Your task to perform on an android device: choose inbox layout in the gmail app Image 0: 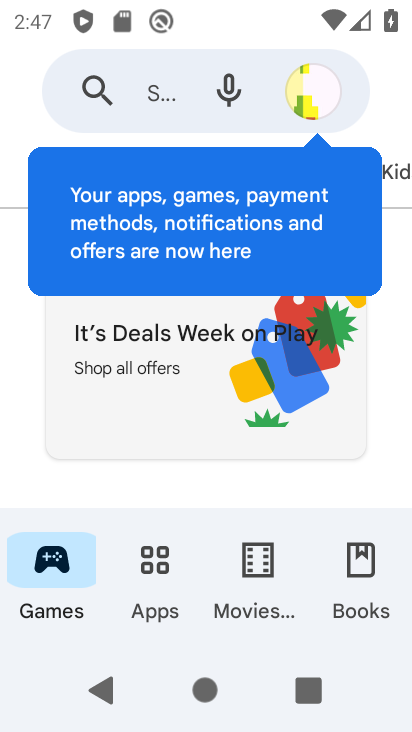
Step 0: press home button
Your task to perform on an android device: choose inbox layout in the gmail app Image 1: 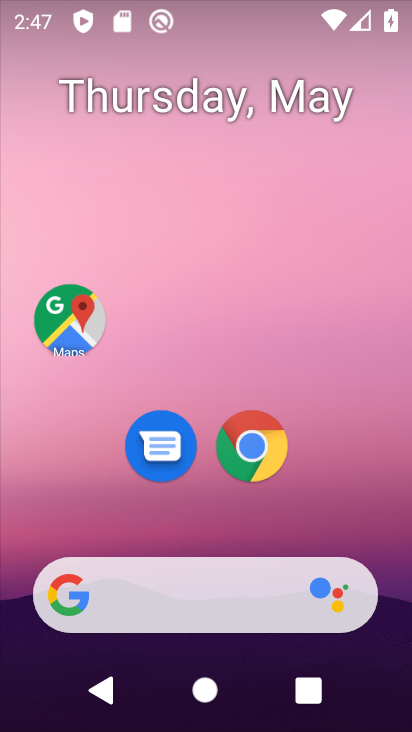
Step 1: drag from (369, 548) to (311, 28)
Your task to perform on an android device: choose inbox layout in the gmail app Image 2: 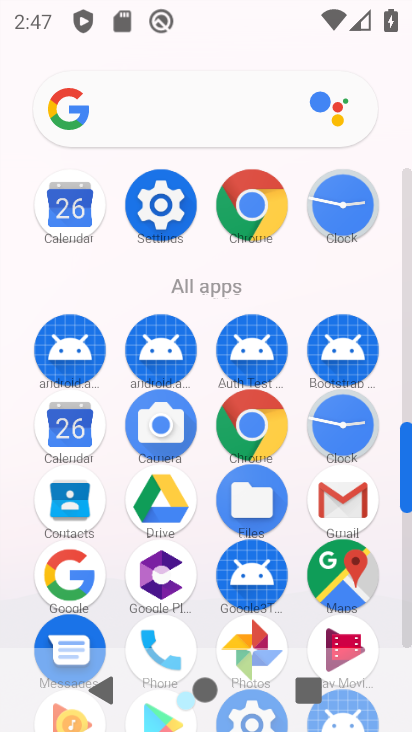
Step 2: click (340, 501)
Your task to perform on an android device: choose inbox layout in the gmail app Image 3: 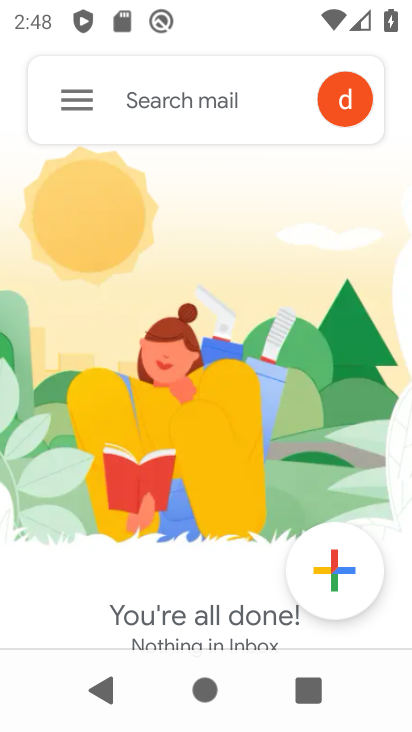
Step 3: click (64, 104)
Your task to perform on an android device: choose inbox layout in the gmail app Image 4: 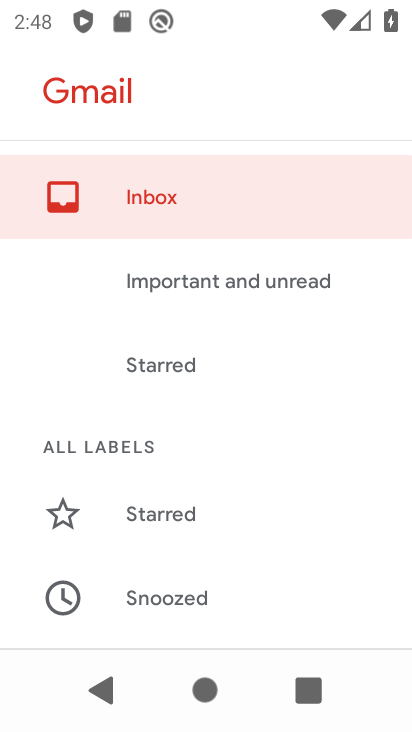
Step 4: drag from (238, 520) to (228, 204)
Your task to perform on an android device: choose inbox layout in the gmail app Image 5: 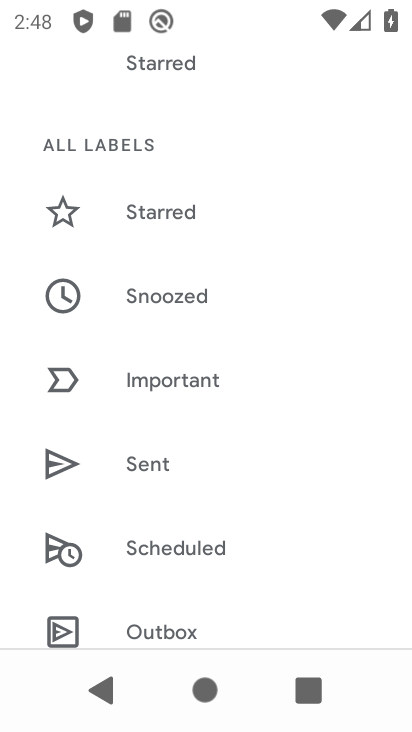
Step 5: drag from (237, 432) to (210, 115)
Your task to perform on an android device: choose inbox layout in the gmail app Image 6: 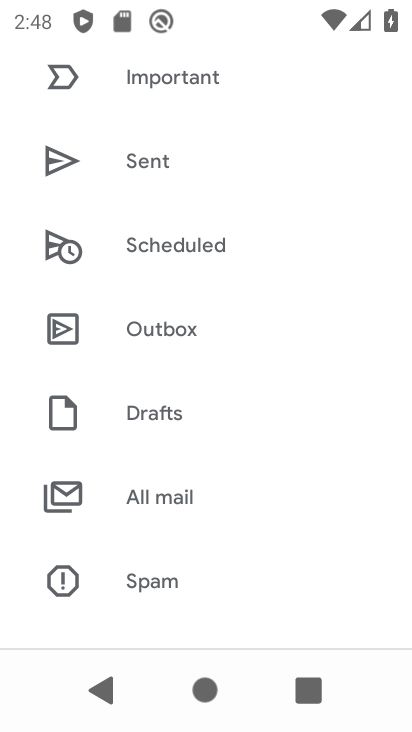
Step 6: drag from (202, 482) to (220, 132)
Your task to perform on an android device: choose inbox layout in the gmail app Image 7: 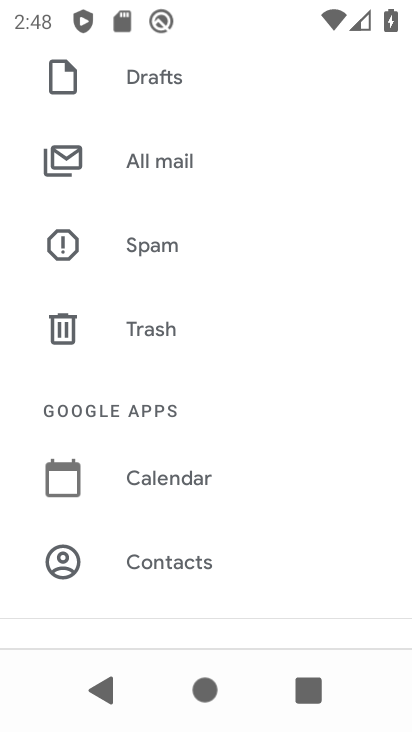
Step 7: drag from (246, 533) to (238, 109)
Your task to perform on an android device: choose inbox layout in the gmail app Image 8: 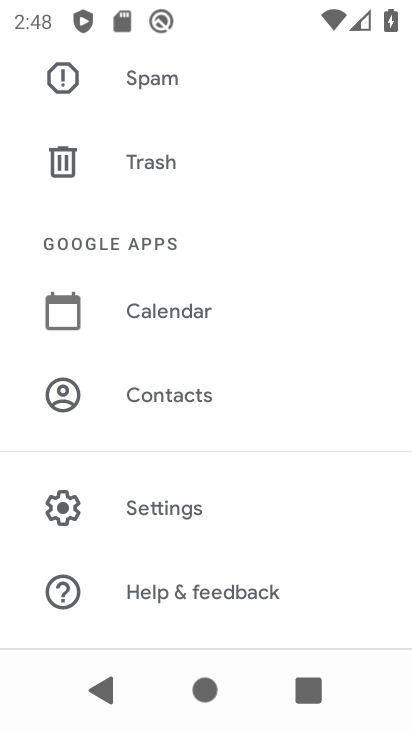
Step 8: click (156, 515)
Your task to perform on an android device: choose inbox layout in the gmail app Image 9: 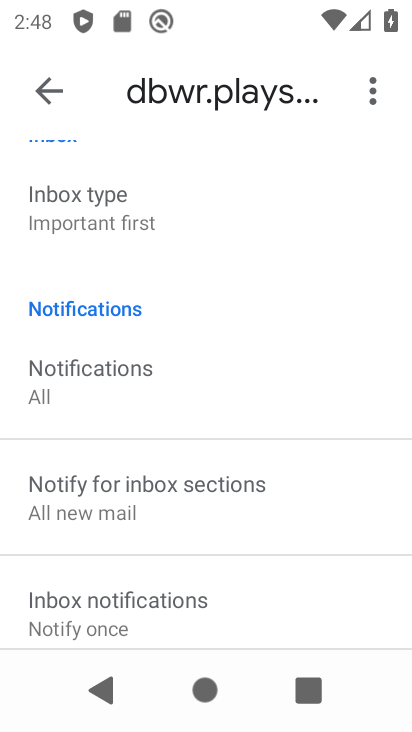
Step 9: click (99, 222)
Your task to perform on an android device: choose inbox layout in the gmail app Image 10: 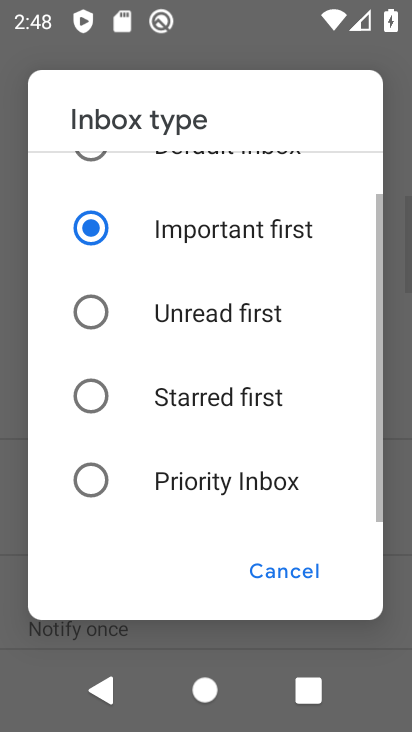
Step 10: click (99, 317)
Your task to perform on an android device: choose inbox layout in the gmail app Image 11: 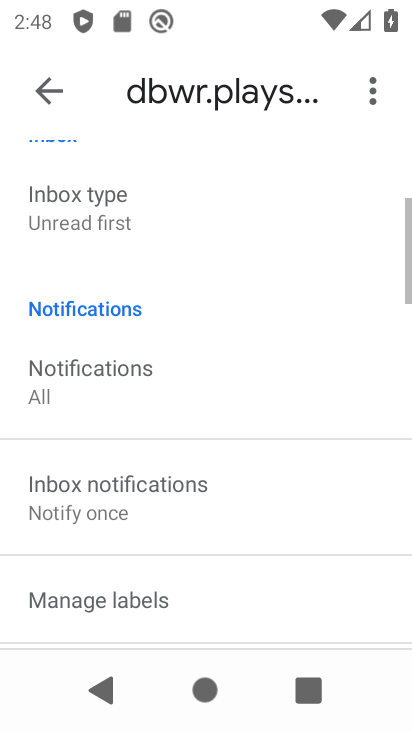
Step 11: task complete